Your task to perform on an android device: change the clock display to analog Image 0: 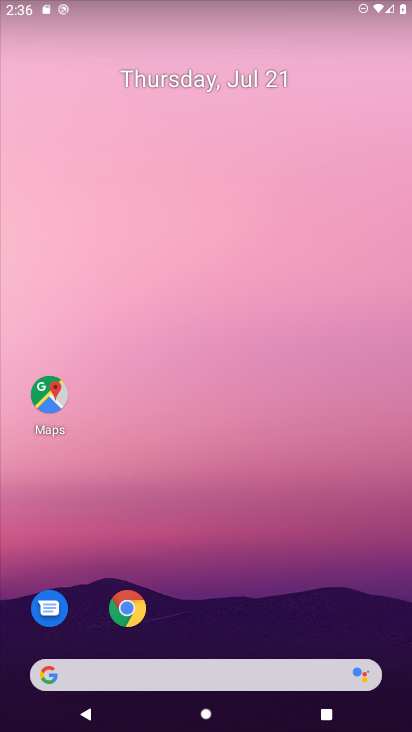
Step 0: drag from (158, 628) to (170, 184)
Your task to perform on an android device: change the clock display to analog Image 1: 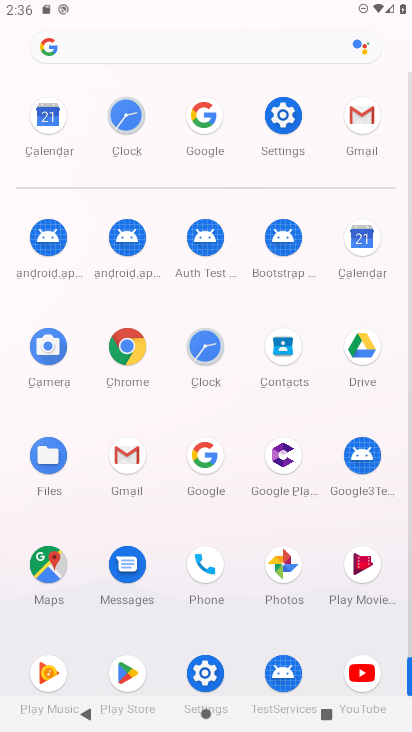
Step 1: click (120, 132)
Your task to perform on an android device: change the clock display to analog Image 2: 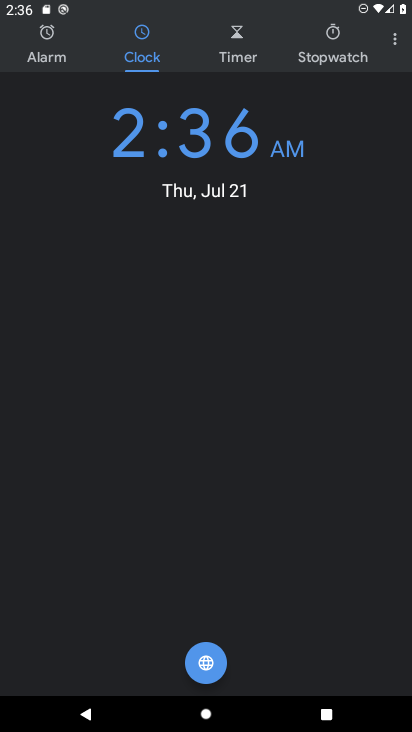
Step 2: click (386, 34)
Your task to perform on an android device: change the clock display to analog Image 3: 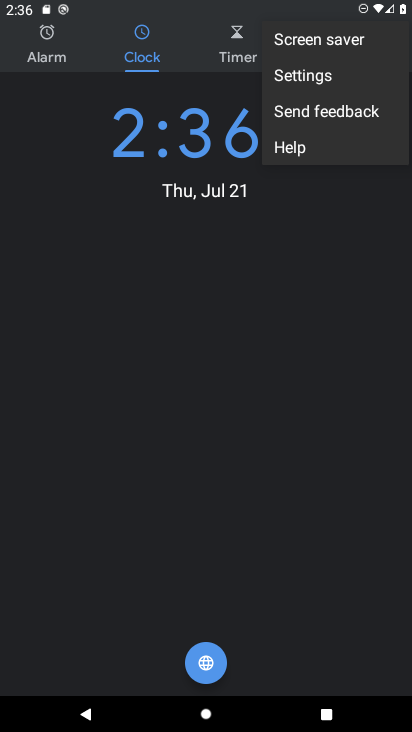
Step 3: click (350, 72)
Your task to perform on an android device: change the clock display to analog Image 4: 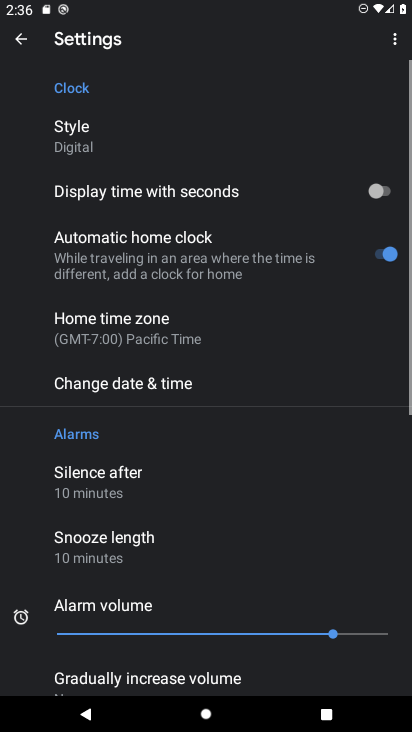
Step 4: click (150, 131)
Your task to perform on an android device: change the clock display to analog Image 5: 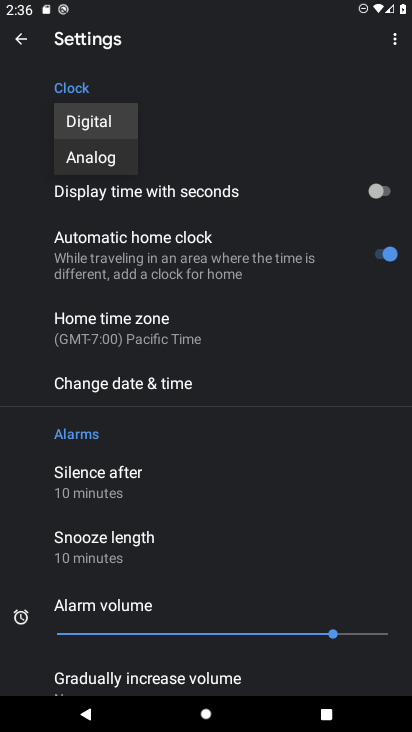
Step 5: click (85, 166)
Your task to perform on an android device: change the clock display to analog Image 6: 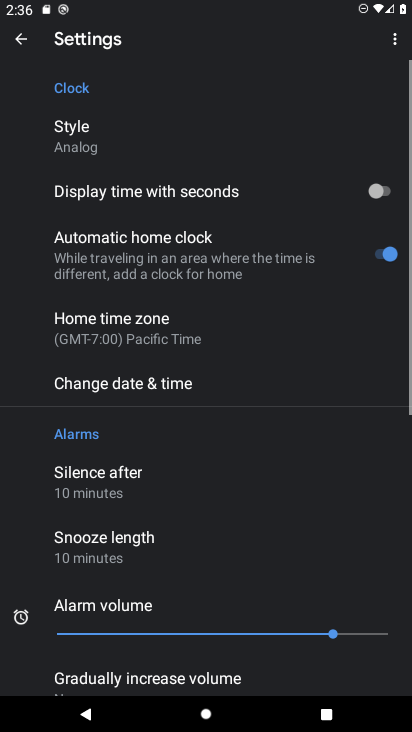
Step 6: task complete